Your task to perform on an android device: What is the recent news? Image 0: 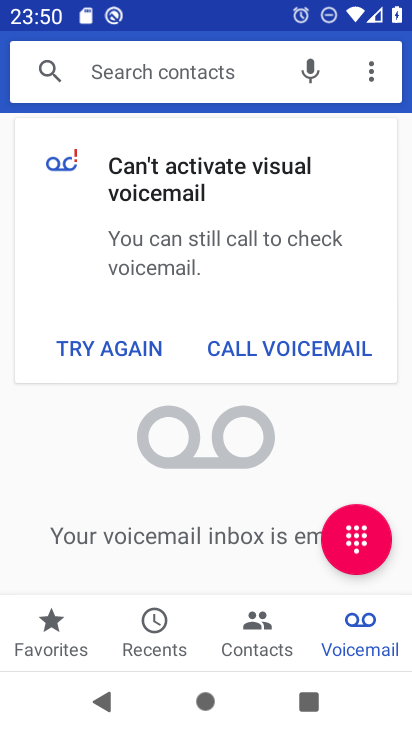
Step 0: press home button
Your task to perform on an android device: What is the recent news? Image 1: 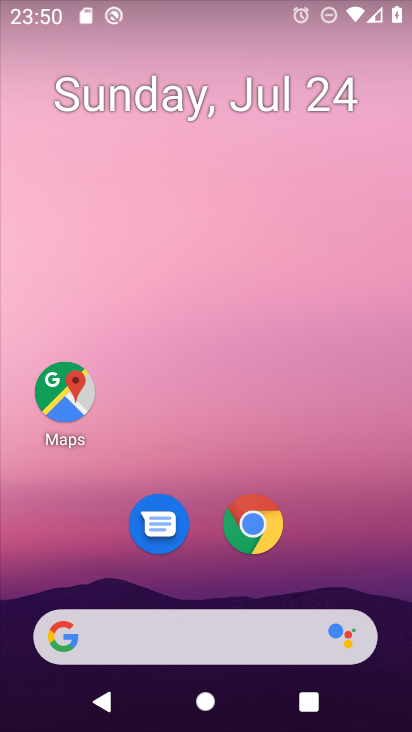
Step 1: click (154, 635)
Your task to perform on an android device: What is the recent news? Image 2: 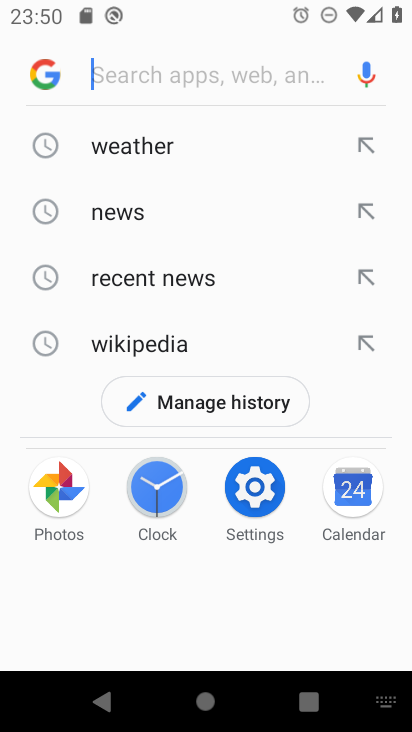
Step 2: click (161, 278)
Your task to perform on an android device: What is the recent news? Image 3: 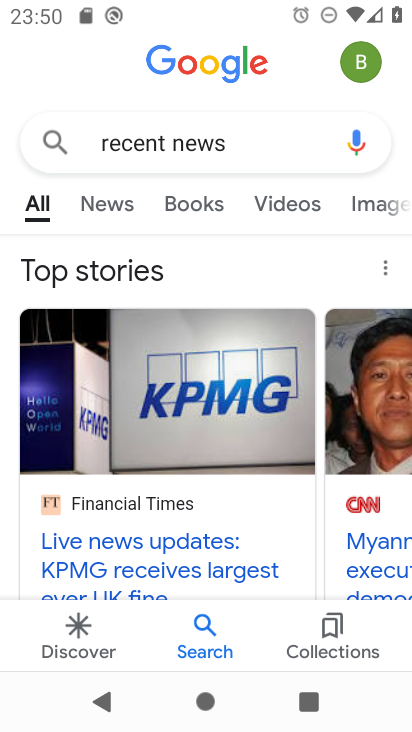
Step 3: click (111, 207)
Your task to perform on an android device: What is the recent news? Image 4: 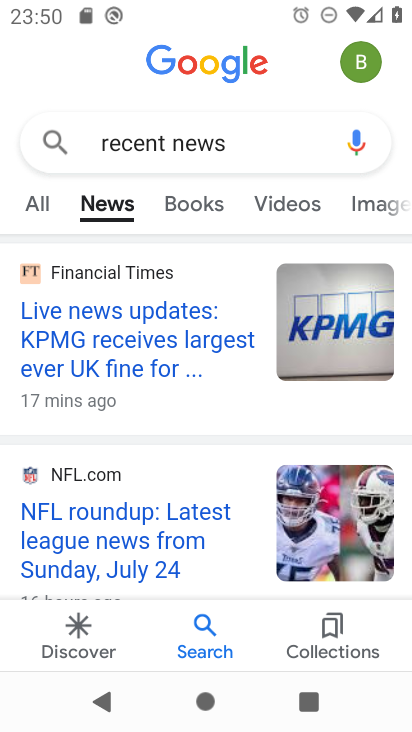
Step 4: task complete